Your task to perform on an android device: Add razer deathadder to the cart on bestbuy Image 0: 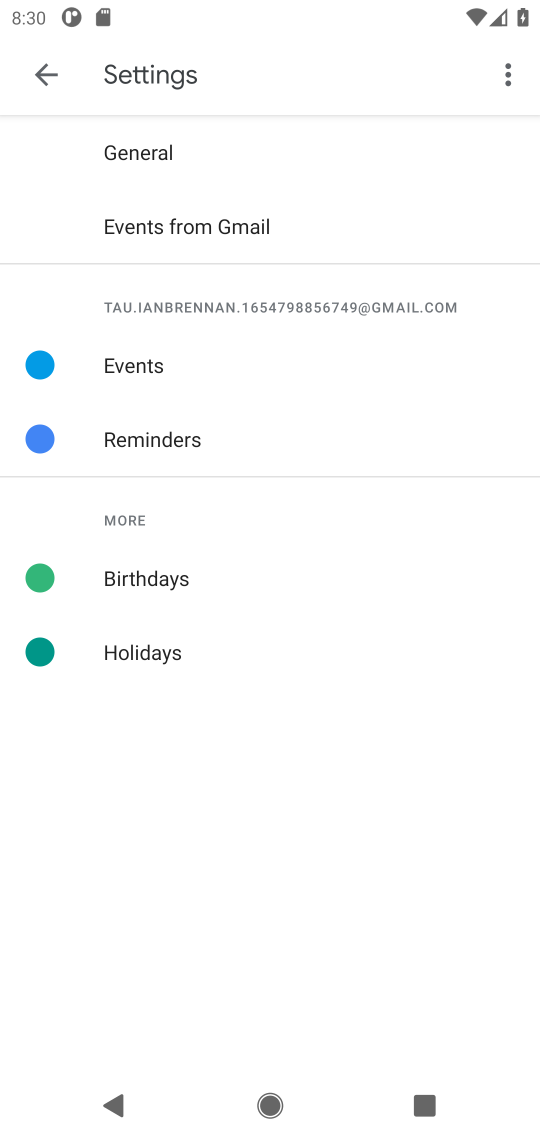
Step 0: press home button
Your task to perform on an android device: Add razer deathadder to the cart on bestbuy Image 1: 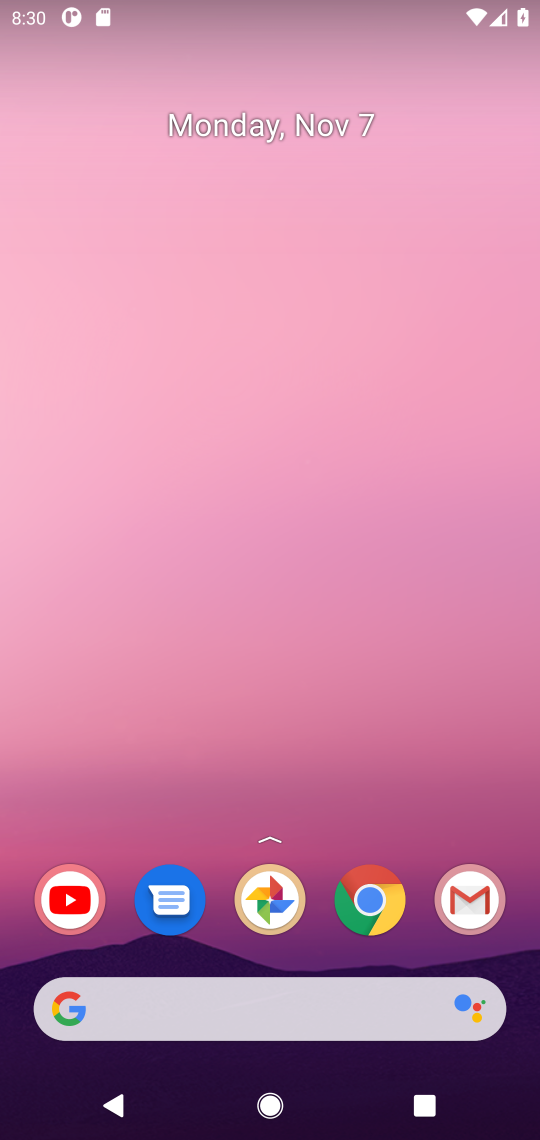
Step 1: drag from (314, 944) to (316, 32)
Your task to perform on an android device: Add razer deathadder to the cart on bestbuy Image 2: 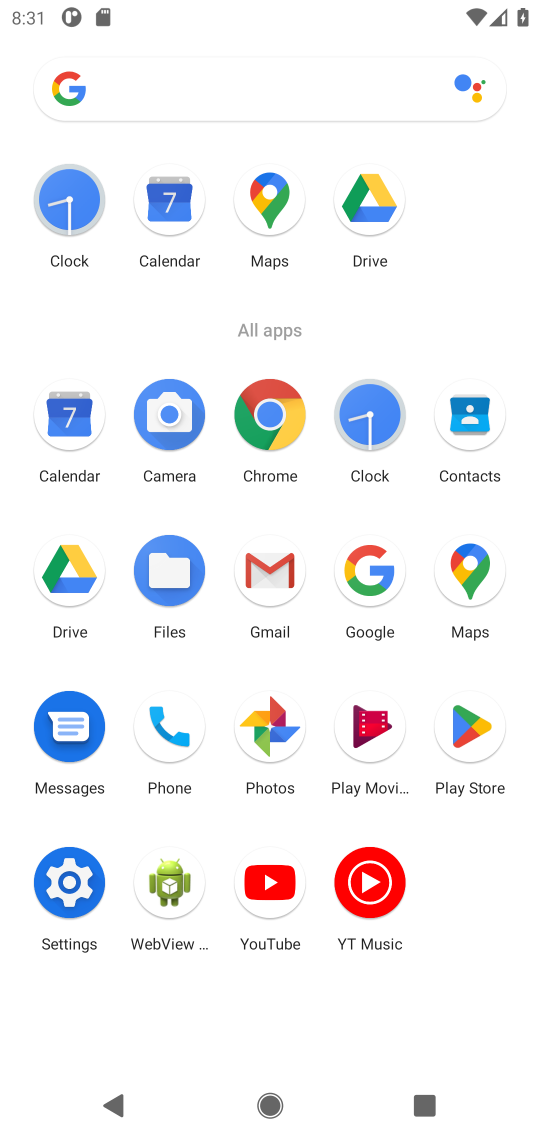
Step 2: click (367, 628)
Your task to perform on an android device: Add razer deathadder to the cart on bestbuy Image 3: 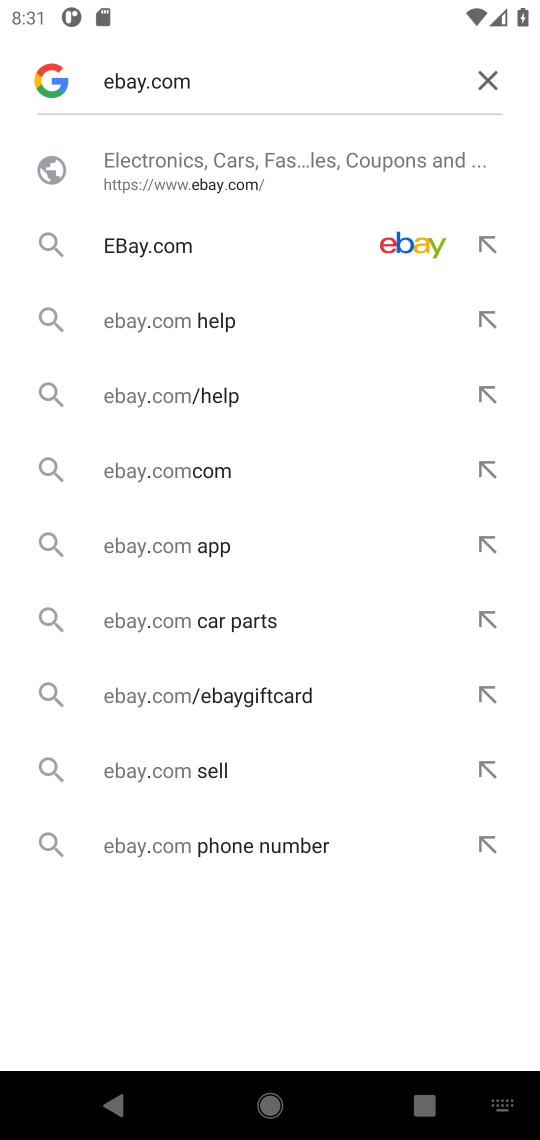
Step 3: click (485, 84)
Your task to perform on an android device: Add razer deathadder to the cart on bestbuy Image 4: 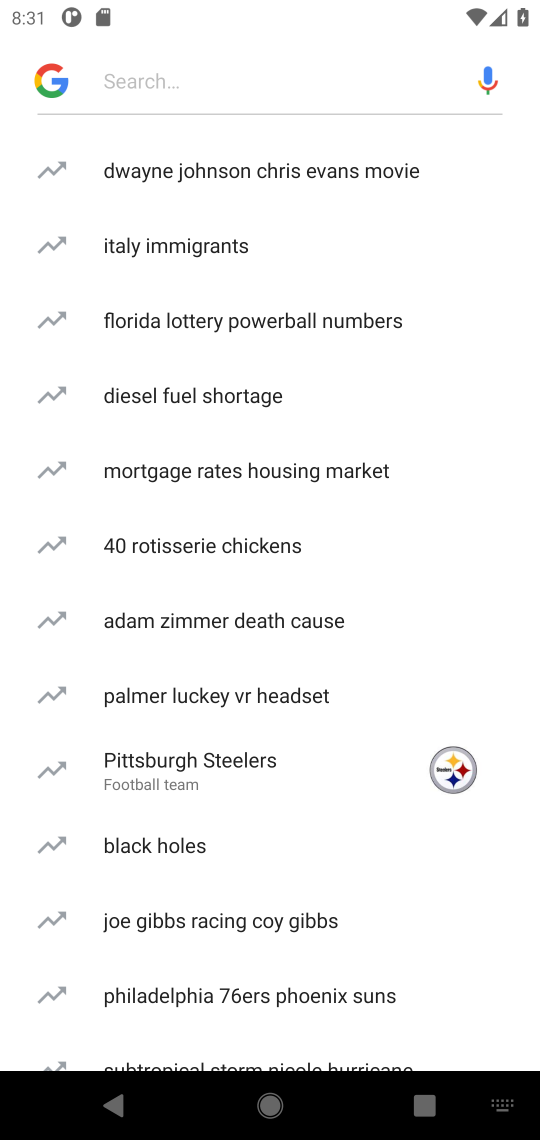
Step 4: type "bestbuy"
Your task to perform on an android device: Add razer deathadder to the cart on bestbuy Image 5: 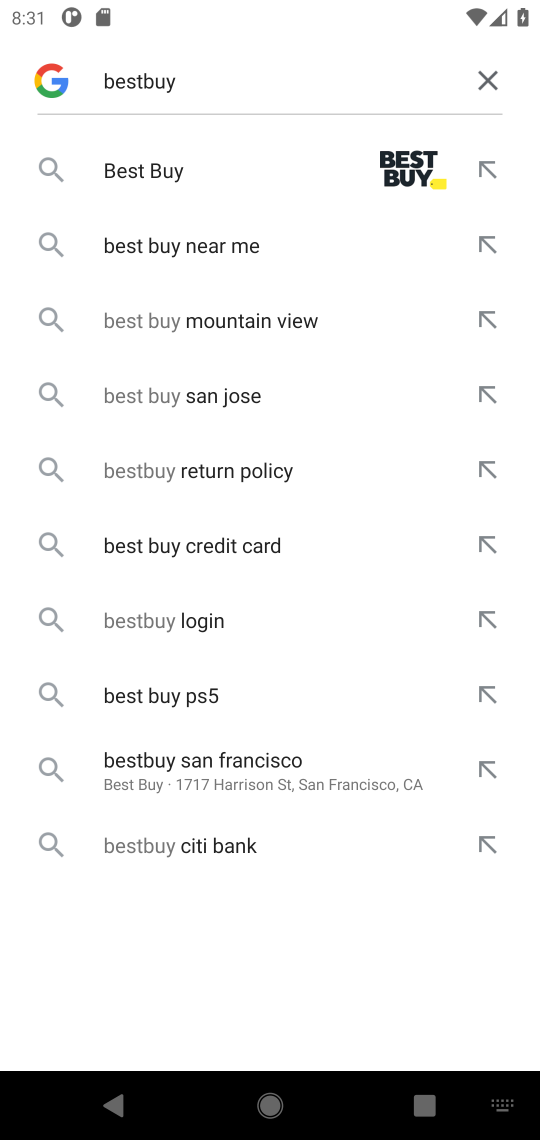
Step 5: click (225, 176)
Your task to perform on an android device: Add razer deathadder to the cart on bestbuy Image 6: 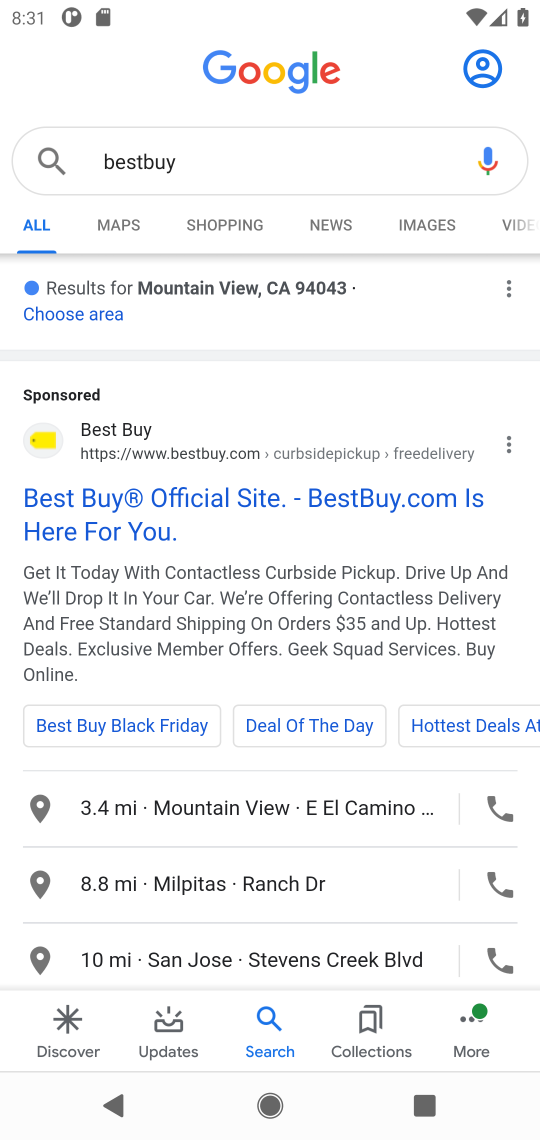
Step 6: click (372, 520)
Your task to perform on an android device: Add razer deathadder to the cart on bestbuy Image 7: 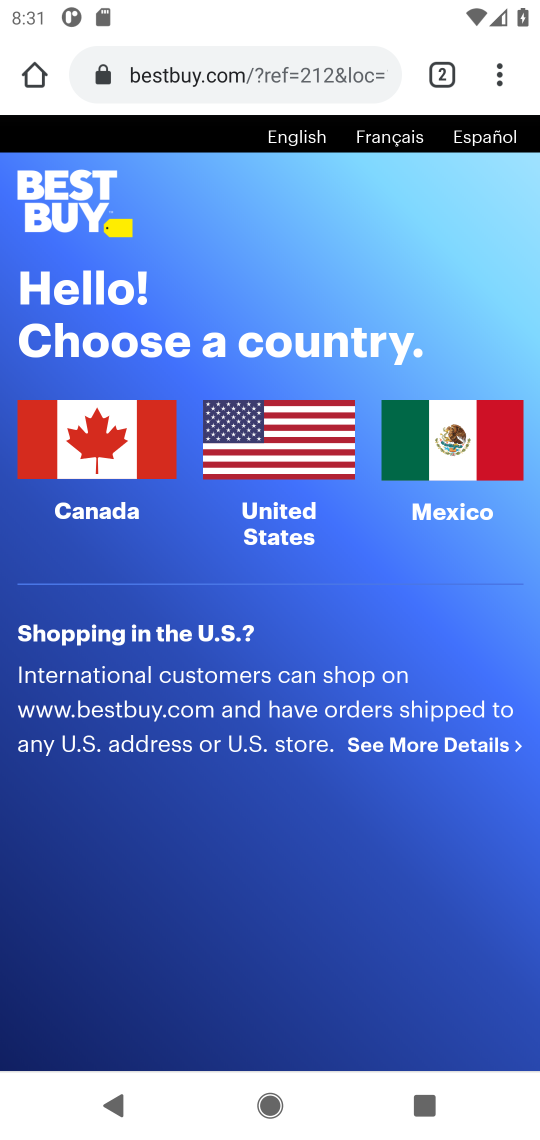
Step 7: click (329, 459)
Your task to perform on an android device: Add razer deathadder to the cart on bestbuy Image 8: 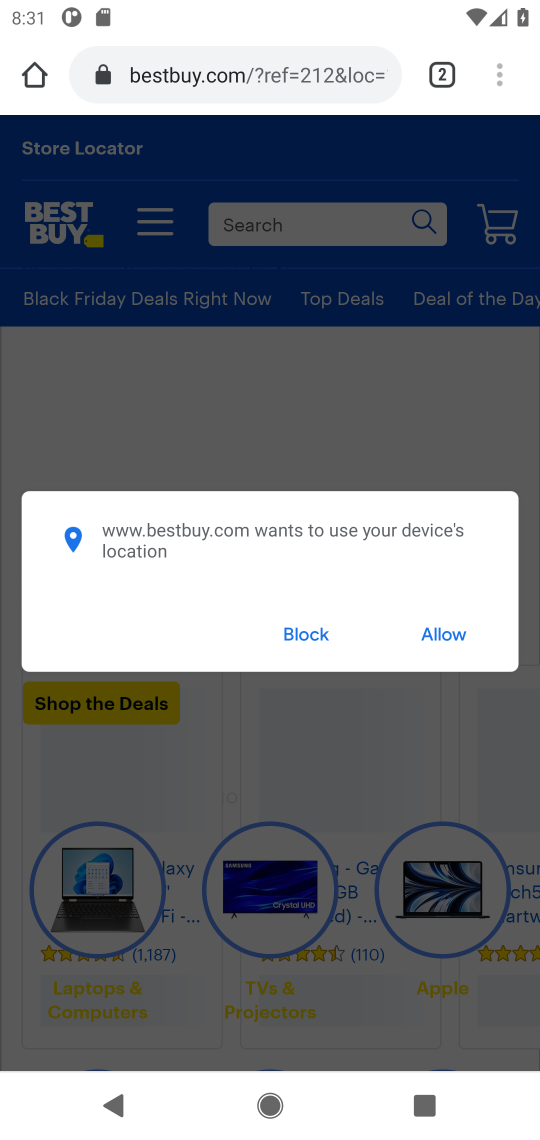
Step 8: click (312, 647)
Your task to perform on an android device: Add razer deathadder to the cart on bestbuy Image 9: 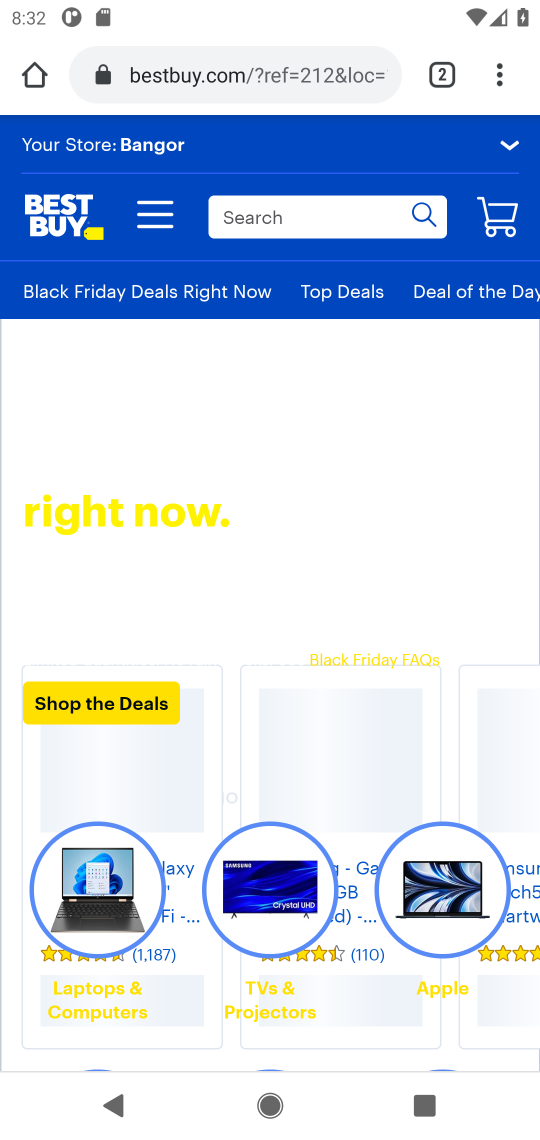
Step 9: click (336, 208)
Your task to perform on an android device: Add razer deathadder to the cart on bestbuy Image 10: 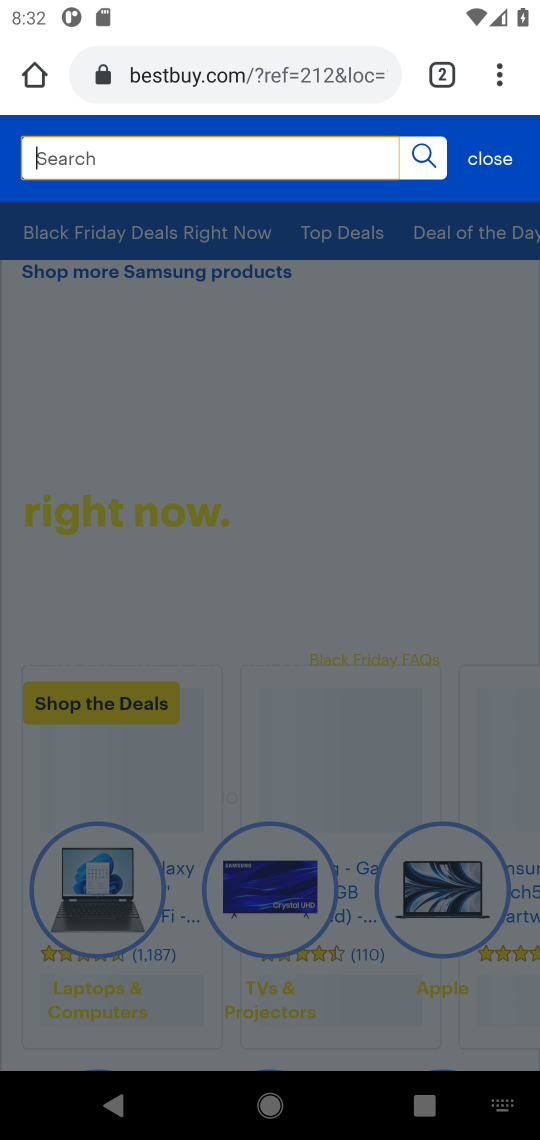
Step 10: type "razer deathadder"
Your task to perform on an android device: Add razer deathadder to the cart on bestbuy Image 11: 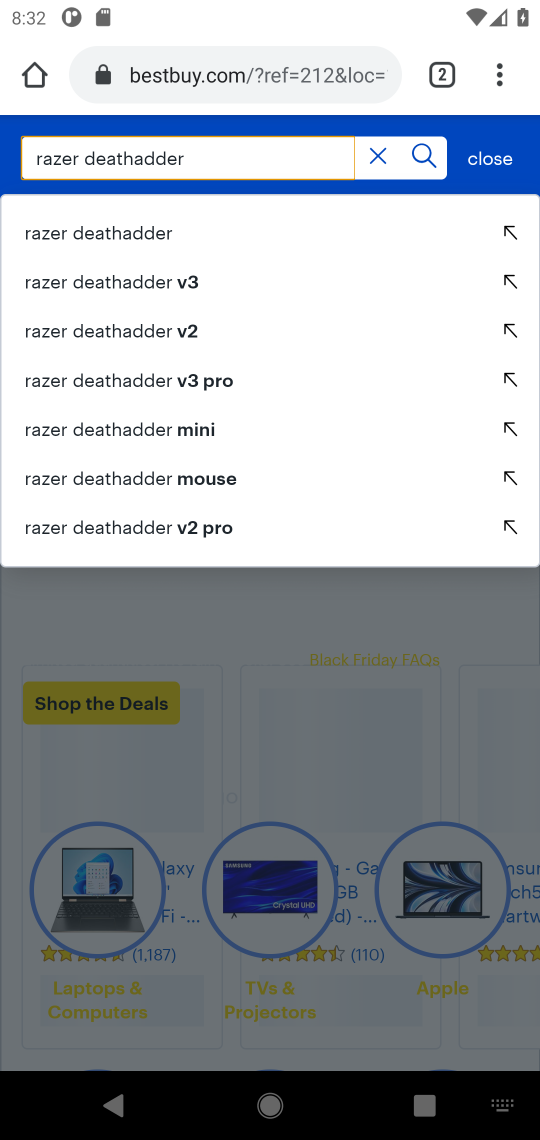
Step 11: click (231, 236)
Your task to perform on an android device: Add razer deathadder to the cart on bestbuy Image 12: 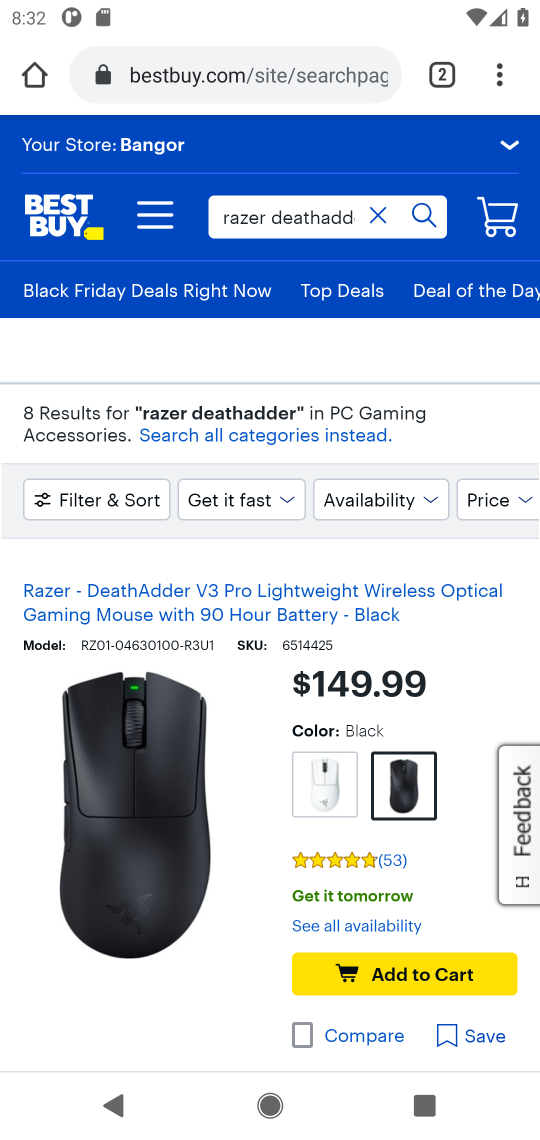
Step 12: drag from (330, 809) to (360, 589)
Your task to perform on an android device: Add razer deathadder to the cart on bestbuy Image 13: 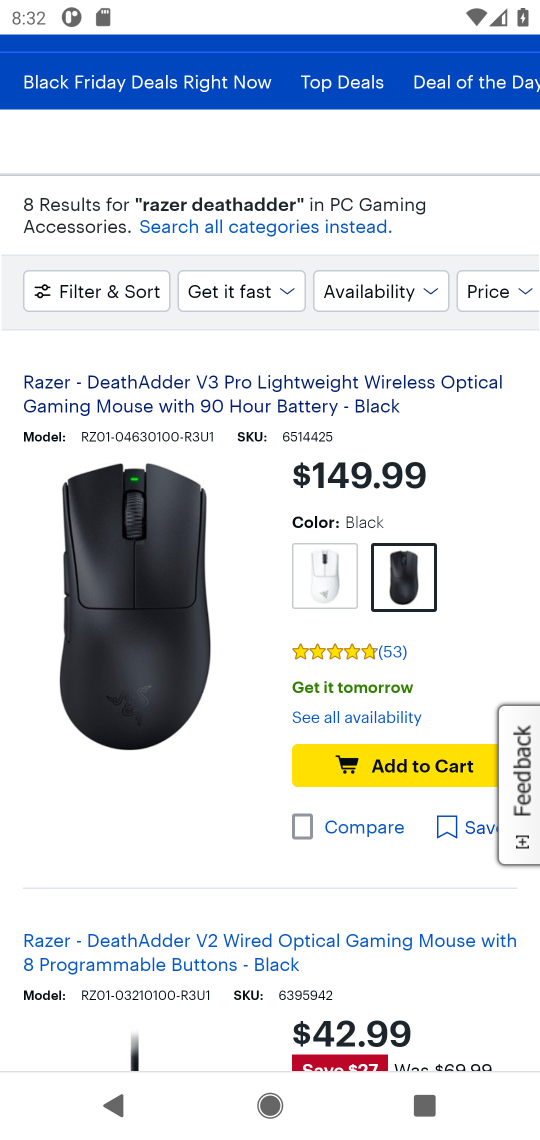
Step 13: click (408, 779)
Your task to perform on an android device: Add razer deathadder to the cart on bestbuy Image 14: 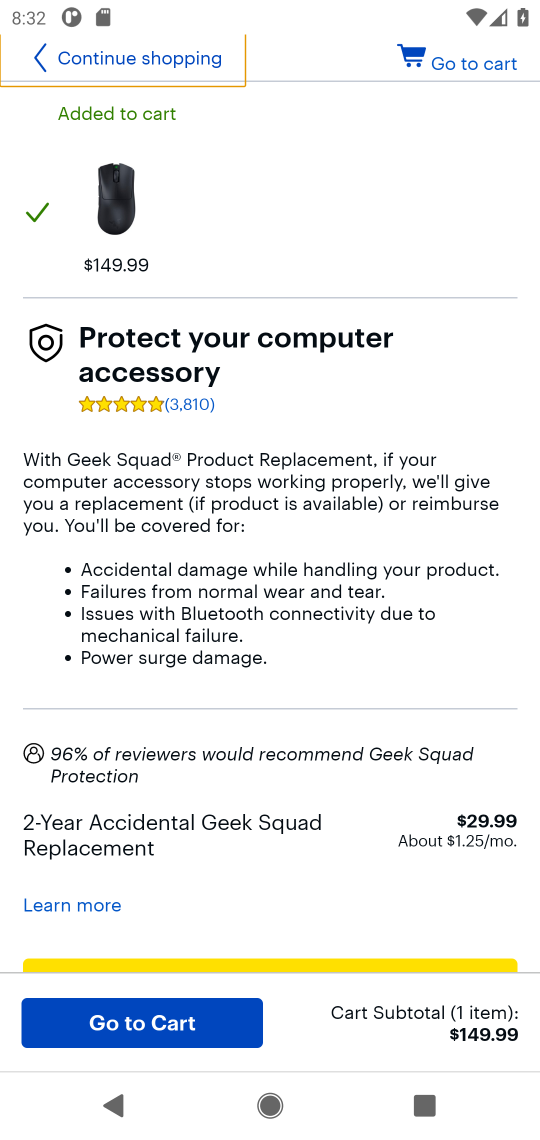
Step 14: task complete